Your task to perform on an android device: make emails show in primary in the gmail app Image 0: 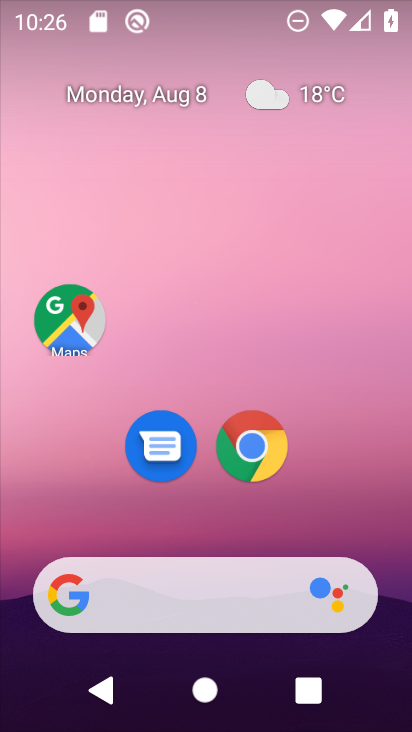
Step 0: drag from (401, 632) to (360, 128)
Your task to perform on an android device: make emails show in primary in the gmail app Image 1: 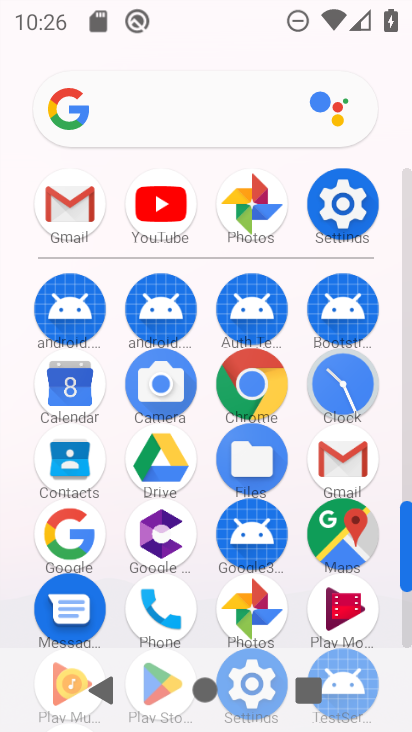
Step 1: click (341, 458)
Your task to perform on an android device: make emails show in primary in the gmail app Image 2: 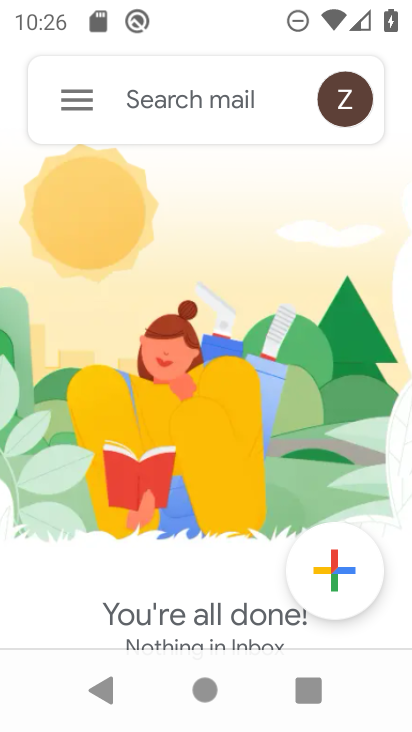
Step 2: click (73, 94)
Your task to perform on an android device: make emails show in primary in the gmail app Image 3: 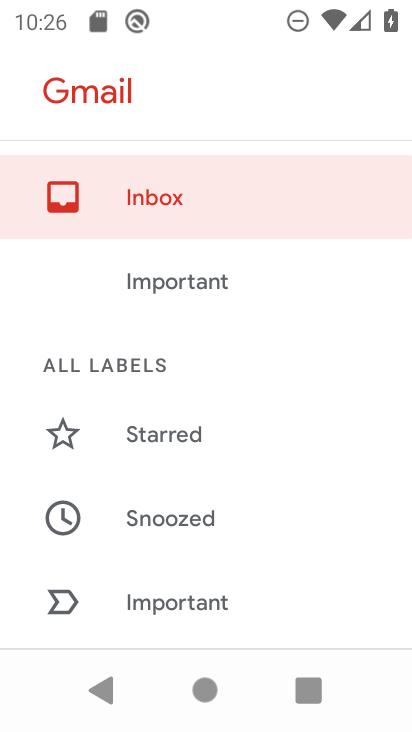
Step 3: drag from (264, 592) to (276, 202)
Your task to perform on an android device: make emails show in primary in the gmail app Image 4: 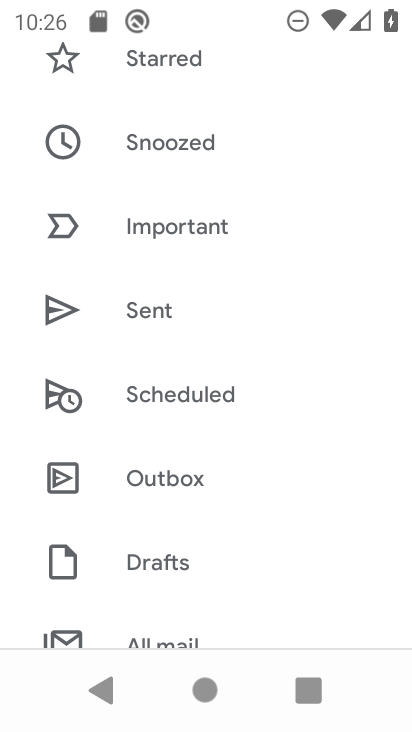
Step 4: drag from (265, 588) to (288, 183)
Your task to perform on an android device: make emails show in primary in the gmail app Image 5: 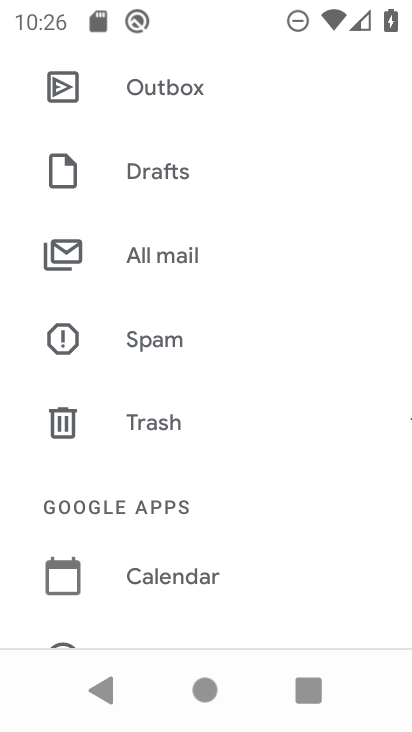
Step 5: drag from (262, 578) to (254, 165)
Your task to perform on an android device: make emails show in primary in the gmail app Image 6: 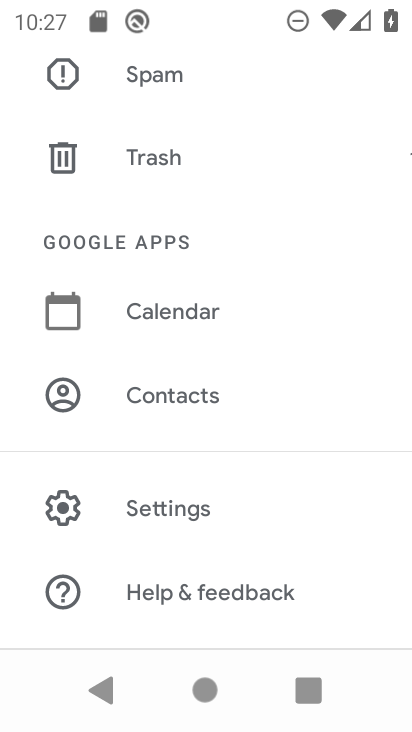
Step 6: click (168, 508)
Your task to perform on an android device: make emails show in primary in the gmail app Image 7: 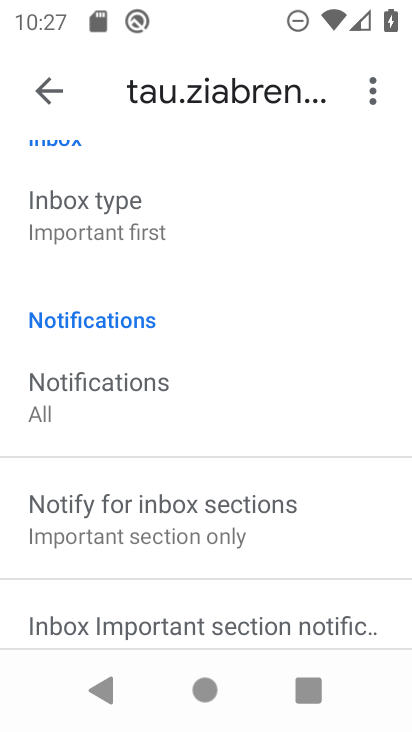
Step 7: click (87, 214)
Your task to perform on an android device: make emails show in primary in the gmail app Image 8: 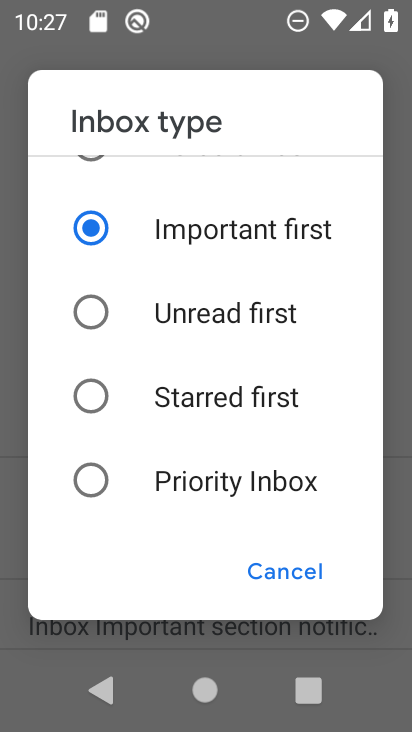
Step 8: drag from (191, 241) to (202, 501)
Your task to perform on an android device: make emails show in primary in the gmail app Image 9: 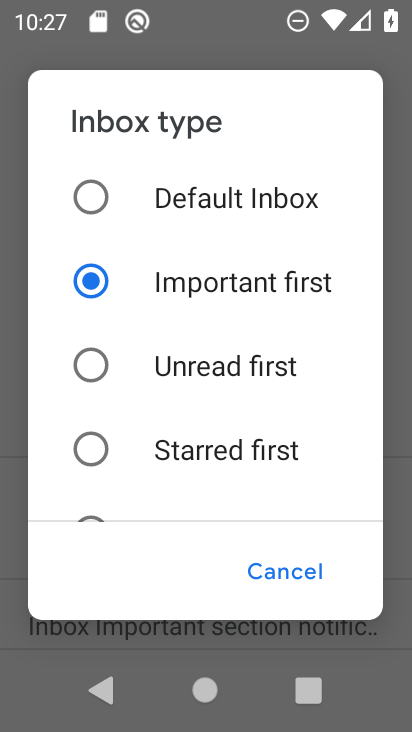
Step 9: click (87, 190)
Your task to perform on an android device: make emails show in primary in the gmail app Image 10: 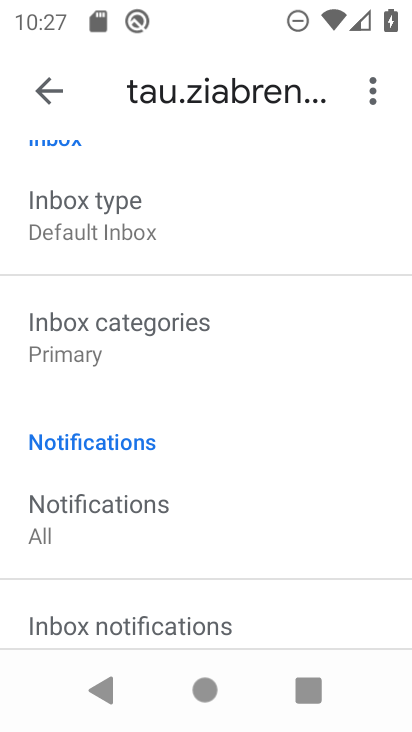
Step 10: click (82, 353)
Your task to perform on an android device: make emails show in primary in the gmail app Image 11: 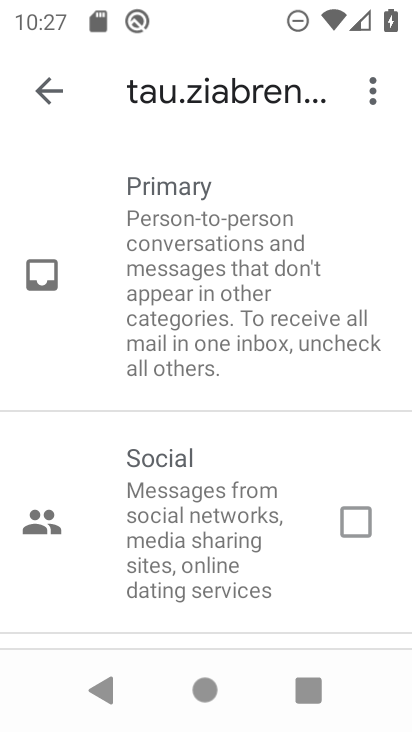
Step 11: task complete